Your task to perform on an android device: check android version Image 0: 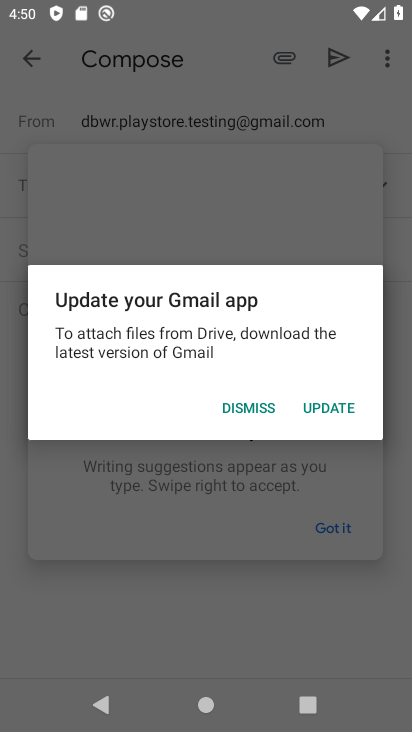
Step 0: press home button
Your task to perform on an android device: check android version Image 1: 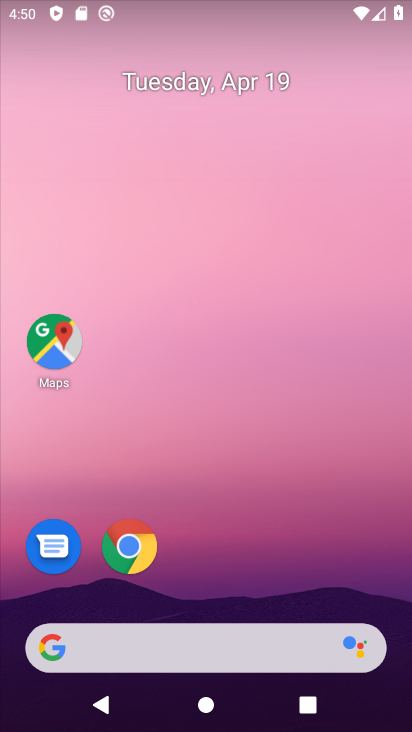
Step 1: drag from (283, 433) to (307, 38)
Your task to perform on an android device: check android version Image 2: 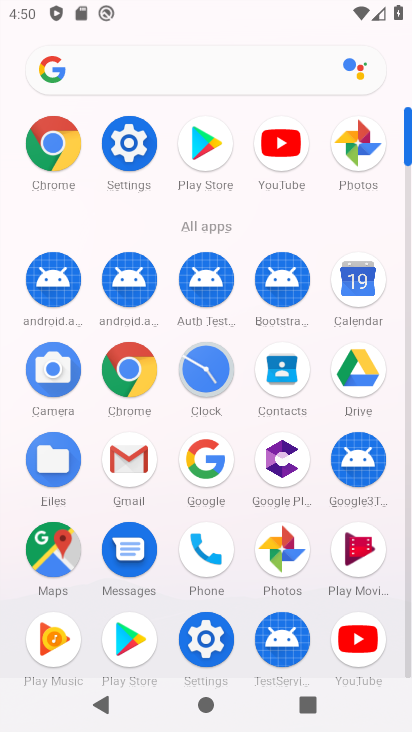
Step 2: click (129, 164)
Your task to perform on an android device: check android version Image 3: 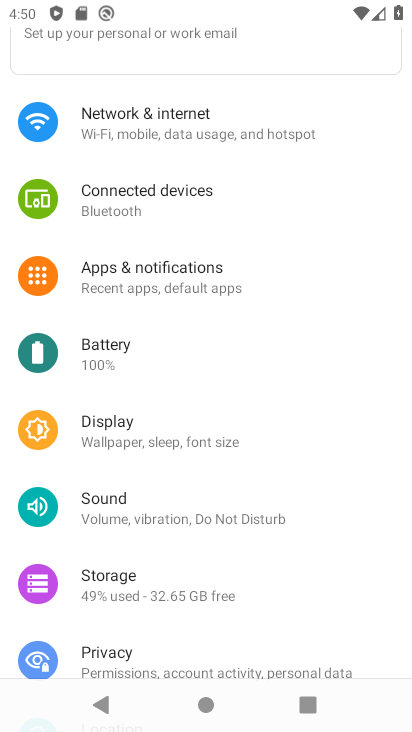
Step 3: drag from (201, 519) to (298, 11)
Your task to perform on an android device: check android version Image 4: 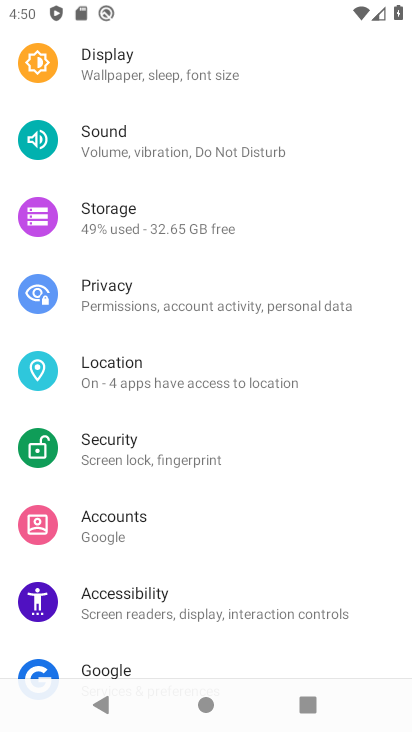
Step 4: drag from (248, 561) to (181, 82)
Your task to perform on an android device: check android version Image 5: 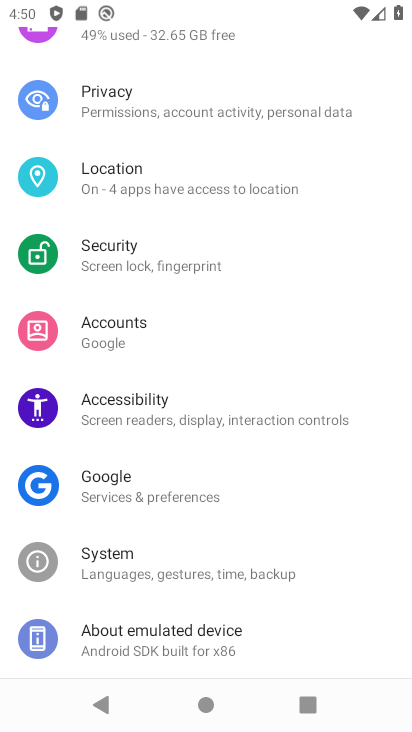
Step 5: drag from (250, 562) to (341, 180)
Your task to perform on an android device: check android version Image 6: 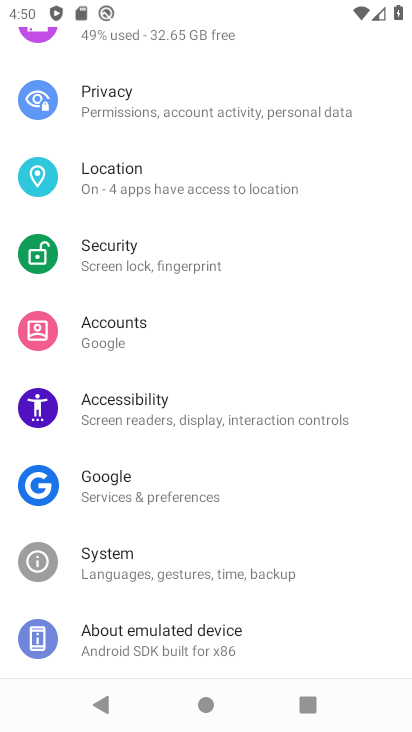
Step 6: click (161, 638)
Your task to perform on an android device: check android version Image 7: 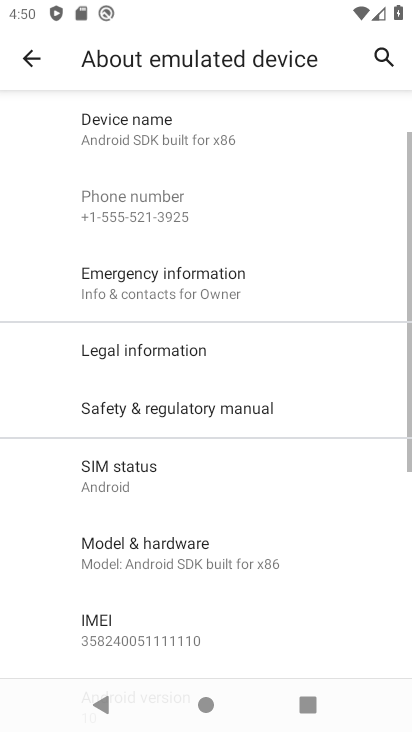
Step 7: drag from (193, 316) to (149, 580)
Your task to perform on an android device: check android version Image 8: 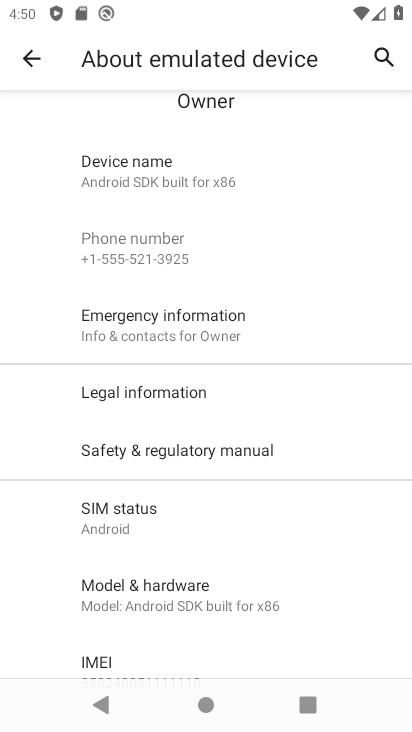
Step 8: drag from (240, 183) to (153, 559)
Your task to perform on an android device: check android version Image 9: 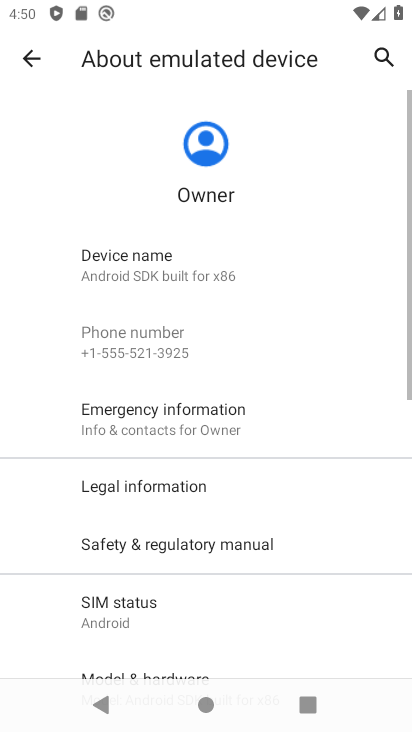
Step 9: drag from (231, 584) to (263, 193)
Your task to perform on an android device: check android version Image 10: 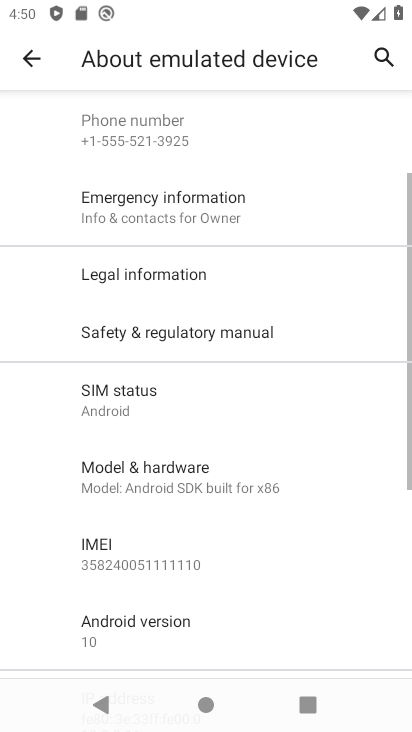
Step 10: drag from (170, 589) to (273, 202)
Your task to perform on an android device: check android version Image 11: 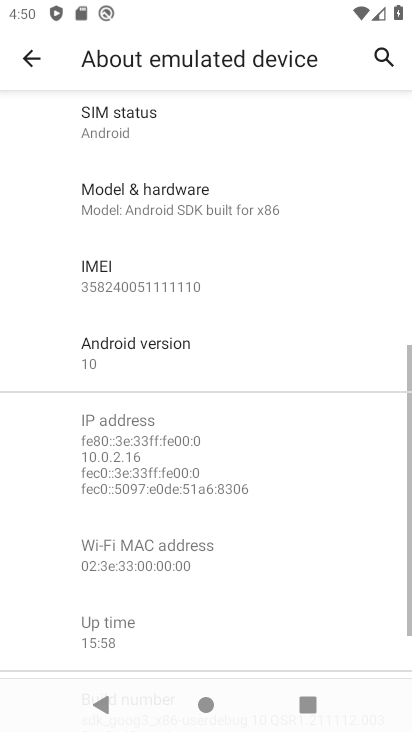
Step 11: click (140, 365)
Your task to perform on an android device: check android version Image 12: 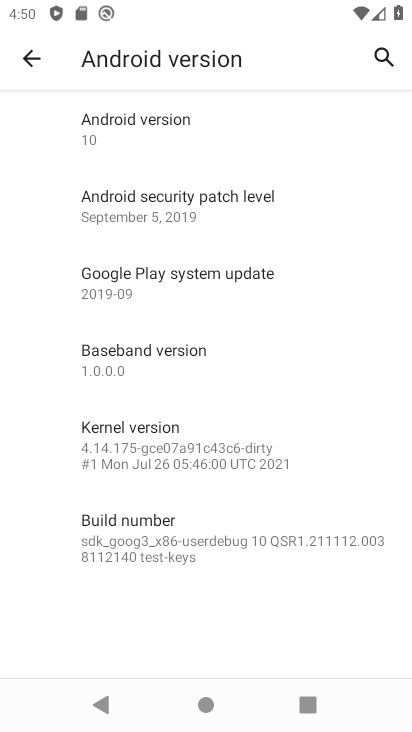
Step 12: click (130, 125)
Your task to perform on an android device: check android version Image 13: 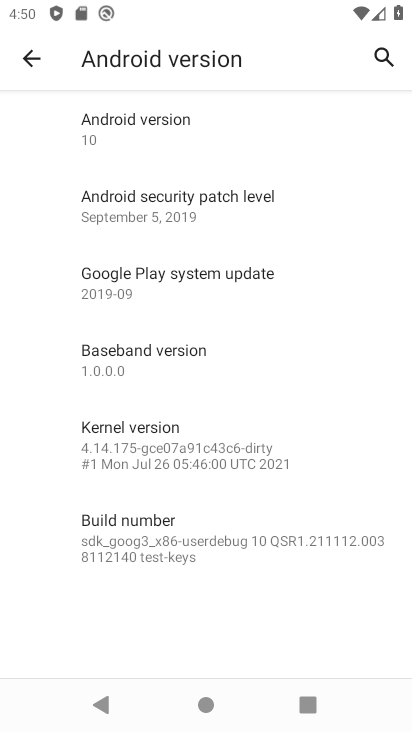
Step 13: task complete